Your task to perform on an android device: change your default location settings in chrome Image 0: 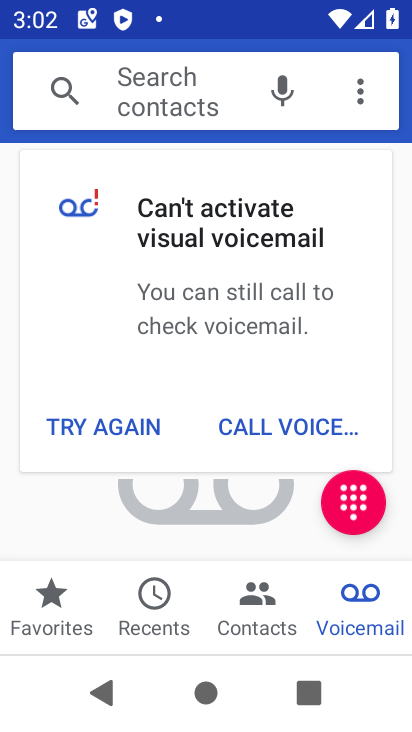
Step 0: press back button
Your task to perform on an android device: change your default location settings in chrome Image 1: 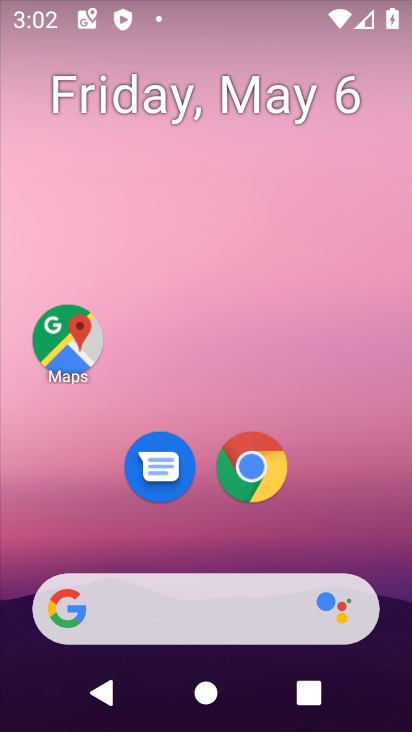
Step 1: click (238, 469)
Your task to perform on an android device: change your default location settings in chrome Image 2: 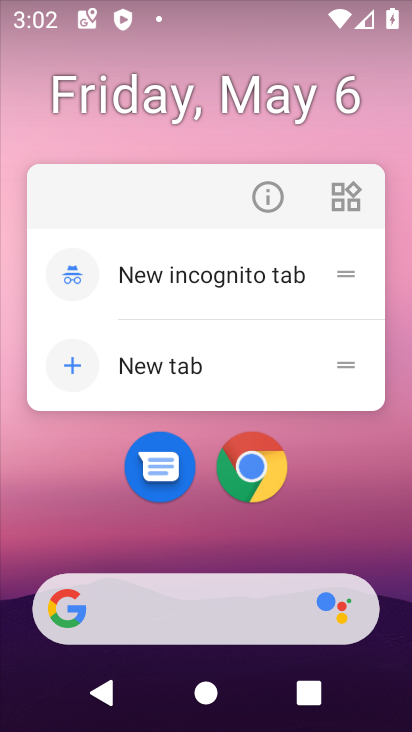
Step 2: click (247, 468)
Your task to perform on an android device: change your default location settings in chrome Image 3: 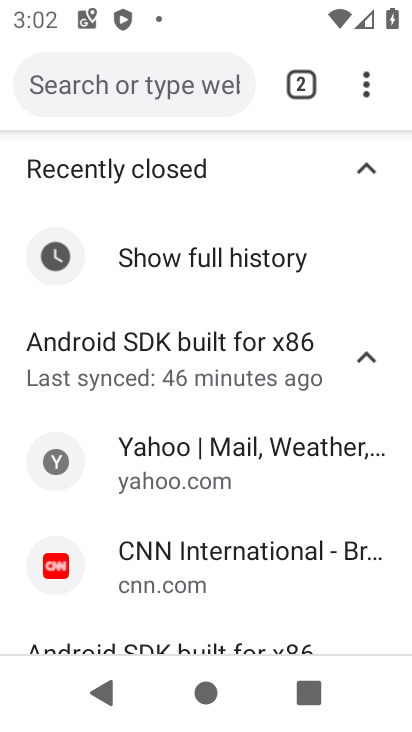
Step 3: drag from (363, 85) to (89, 525)
Your task to perform on an android device: change your default location settings in chrome Image 4: 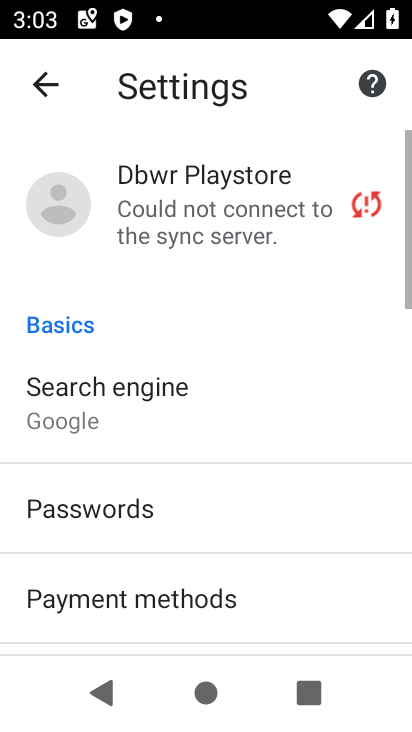
Step 4: drag from (133, 511) to (273, 50)
Your task to perform on an android device: change your default location settings in chrome Image 5: 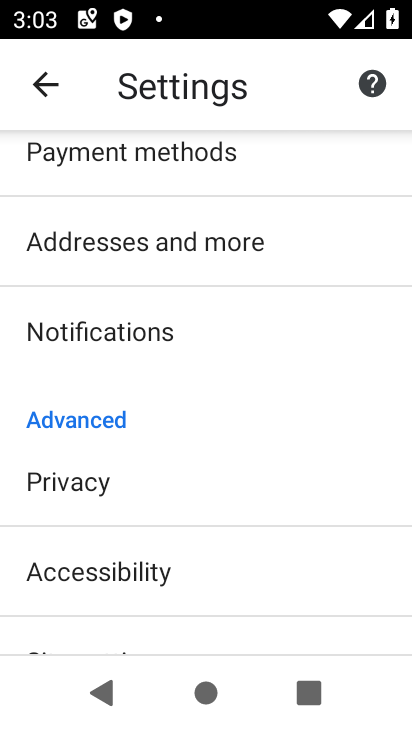
Step 5: drag from (154, 573) to (288, 72)
Your task to perform on an android device: change your default location settings in chrome Image 6: 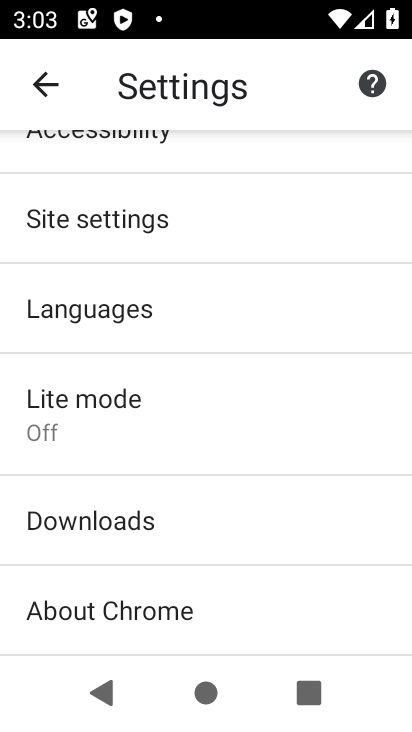
Step 6: click (86, 218)
Your task to perform on an android device: change your default location settings in chrome Image 7: 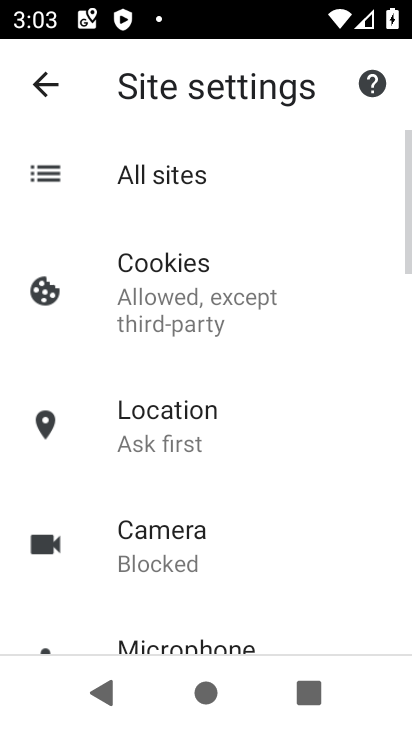
Step 7: click (151, 408)
Your task to perform on an android device: change your default location settings in chrome Image 8: 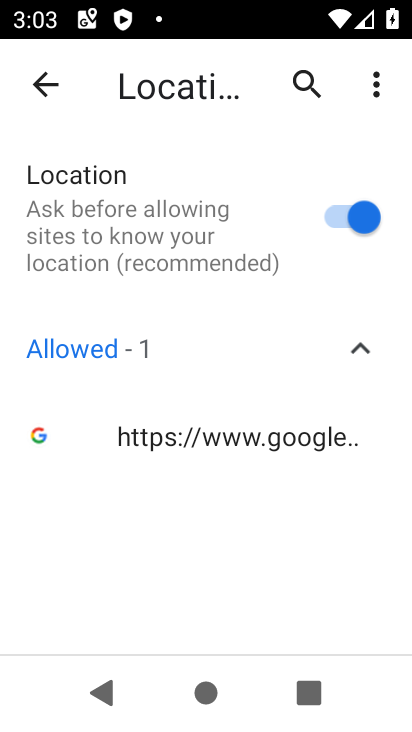
Step 8: click (204, 432)
Your task to perform on an android device: change your default location settings in chrome Image 9: 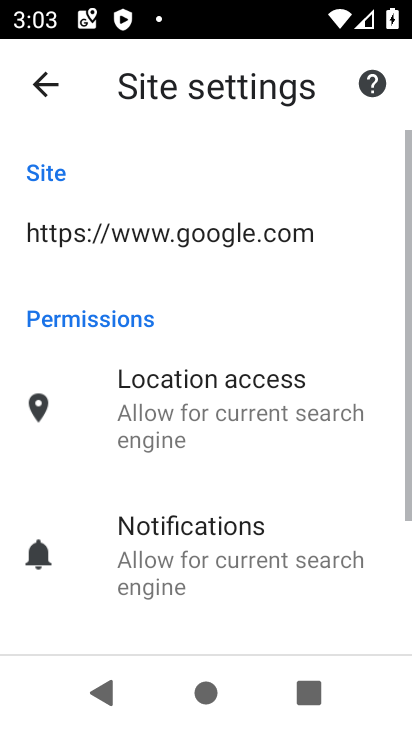
Step 9: click (242, 409)
Your task to perform on an android device: change your default location settings in chrome Image 10: 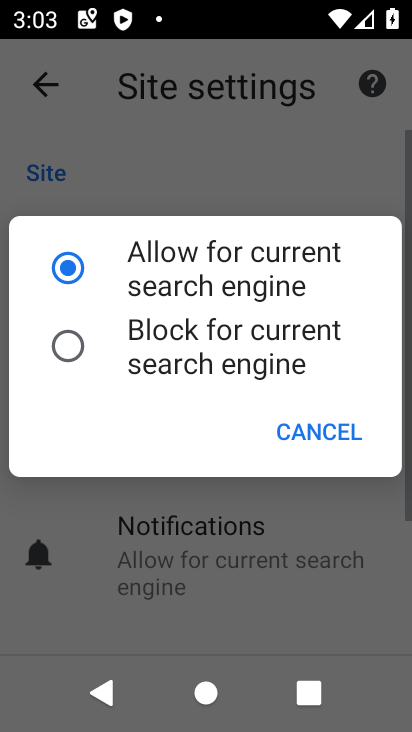
Step 10: click (309, 434)
Your task to perform on an android device: change your default location settings in chrome Image 11: 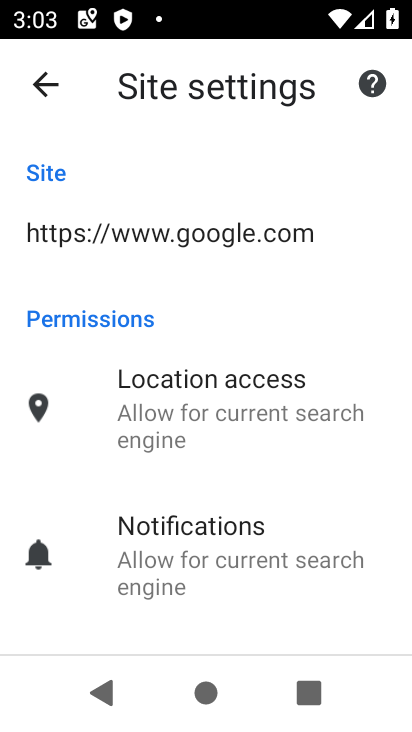
Step 11: click (183, 533)
Your task to perform on an android device: change your default location settings in chrome Image 12: 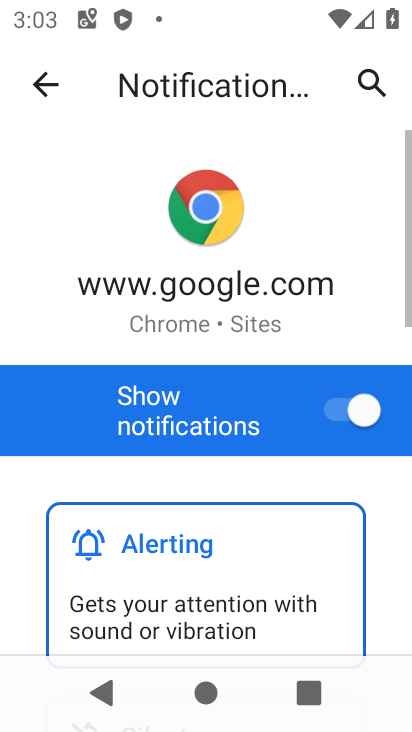
Step 12: click (42, 85)
Your task to perform on an android device: change your default location settings in chrome Image 13: 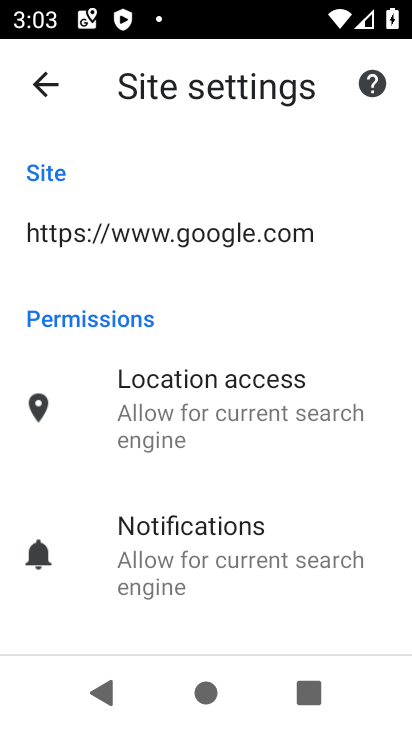
Step 13: click (170, 396)
Your task to perform on an android device: change your default location settings in chrome Image 14: 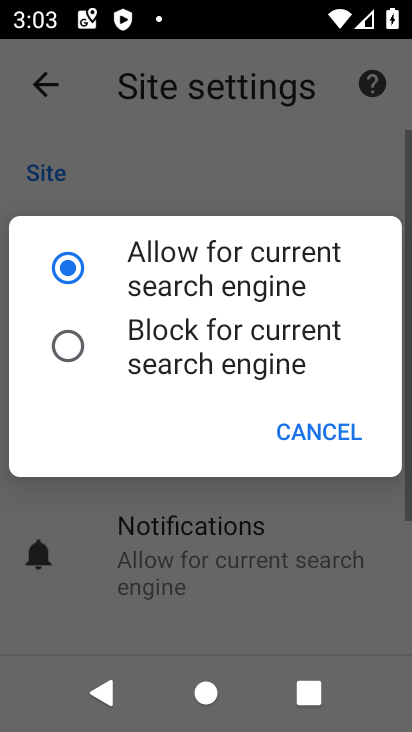
Step 14: click (298, 426)
Your task to perform on an android device: change your default location settings in chrome Image 15: 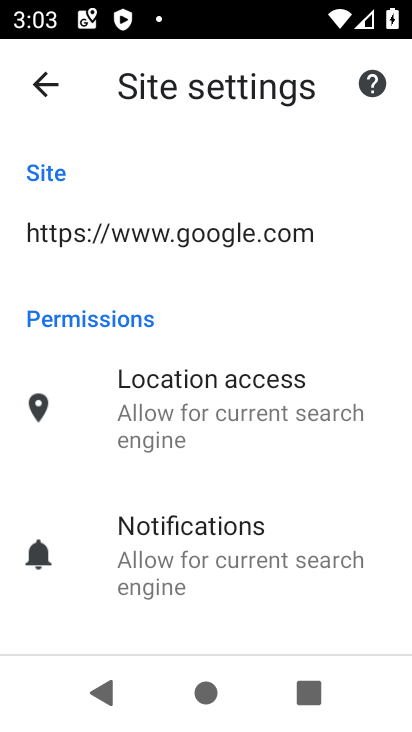
Step 15: click (205, 379)
Your task to perform on an android device: change your default location settings in chrome Image 16: 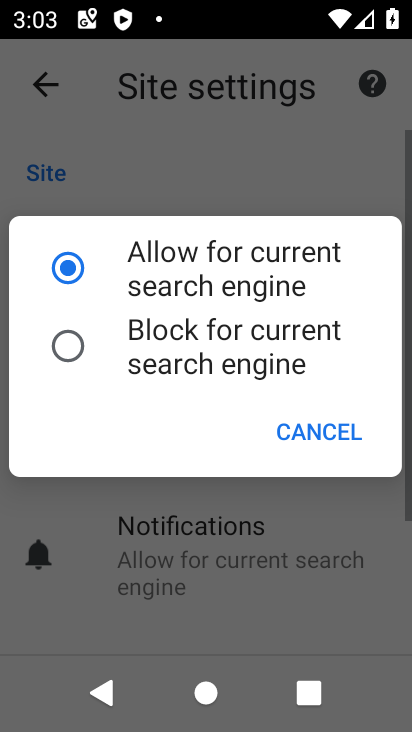
Step 16: click (58, 359)
Your task to perform on an android device: change your default location settings in chrome Image 17: 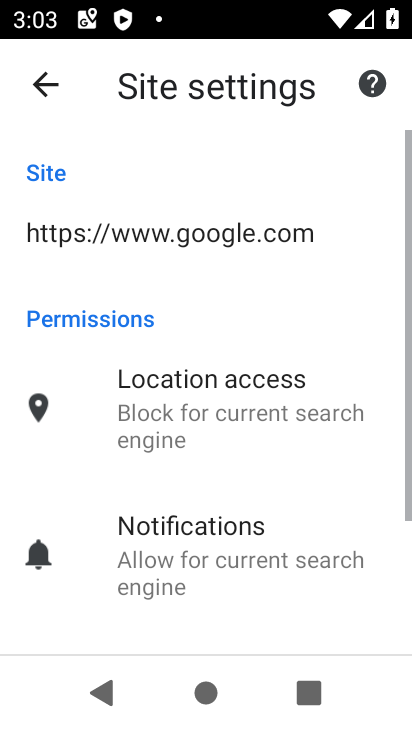
Step 17: task complete